Your task to perform on an android device: open app "Google Pay: Save, Pay, Manage" (install if not already installed) Image 0: 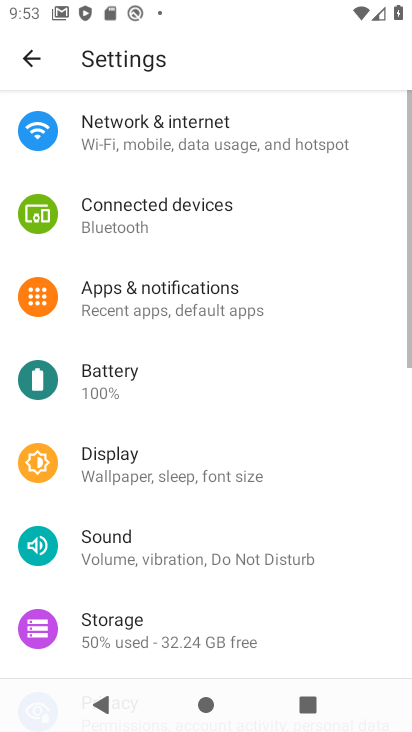
Step 0: press back button
Your task to perform on an android device: open app "Google Pay: Save, Pay, Manage" (install if not already installed) Image 1: 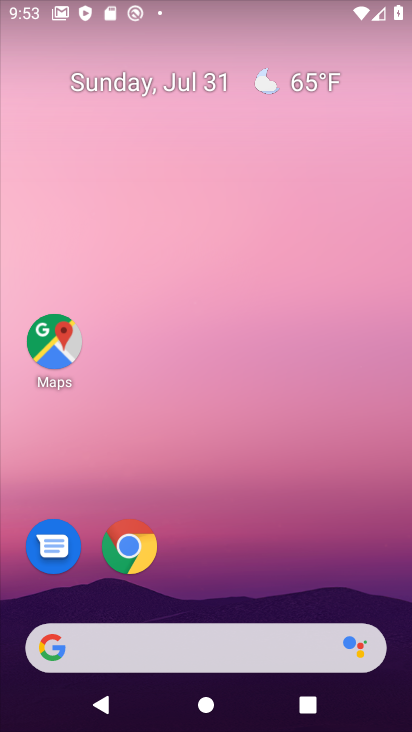
Step 1: drag from (230, 603) to (288, 11)
Your task to perform on an android device: open app "Google Pay: Save, Pay, Manage" (install if not already installed) Image 2: 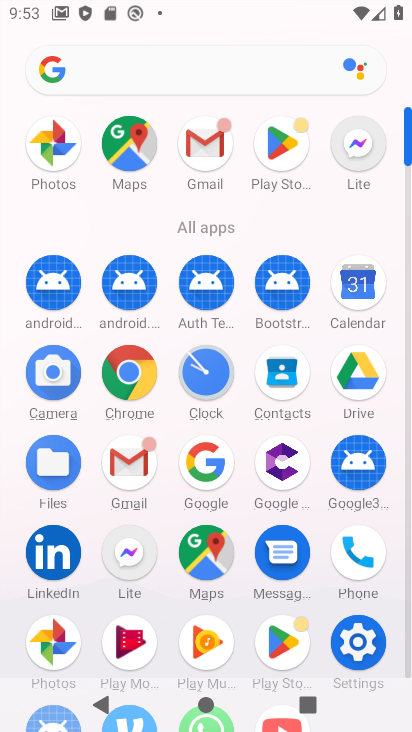
Step 2: click (286, 143)
Your task to perform on an android device: open app "Google Pay: Save, Pay, Manage" (install if not already installed) Image 3: 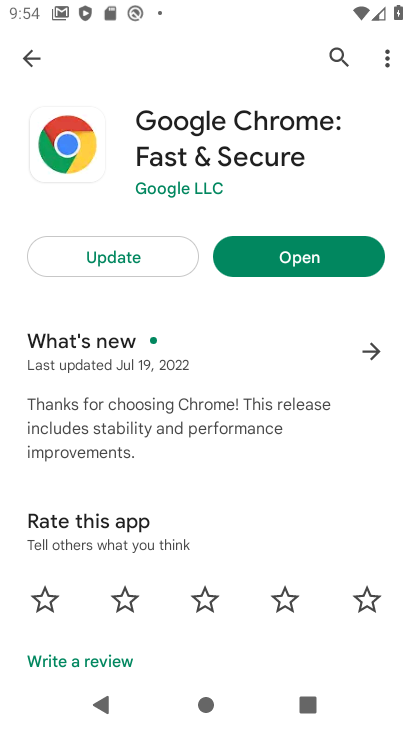
Step 3: click (30, 54)
Your task to perform on an android device: open app "Google Pay: Save, Pay, Manage" (install if not already installed) Image 4: 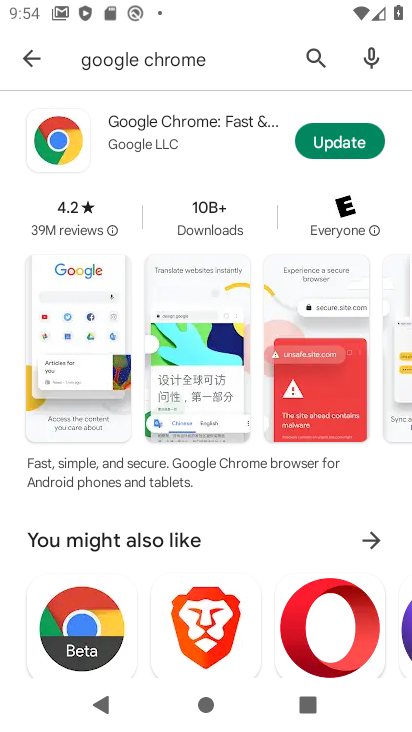
Step 4: click (307, 57)
Your task to perform on an android device: open app "Google Pay: Save, Pay, Manage" (install if not already installed) Image 5: 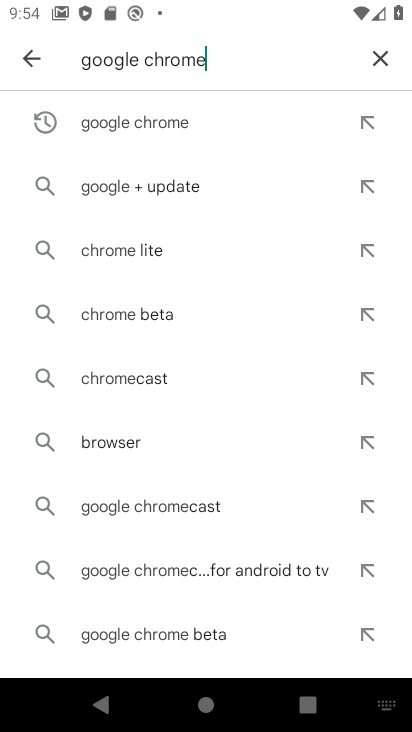
Step 5: click (363, 52)
Your task to perform on an android device: open app "Google Pay: Save, Pay, Manage" (install if not already installed) Image 6: 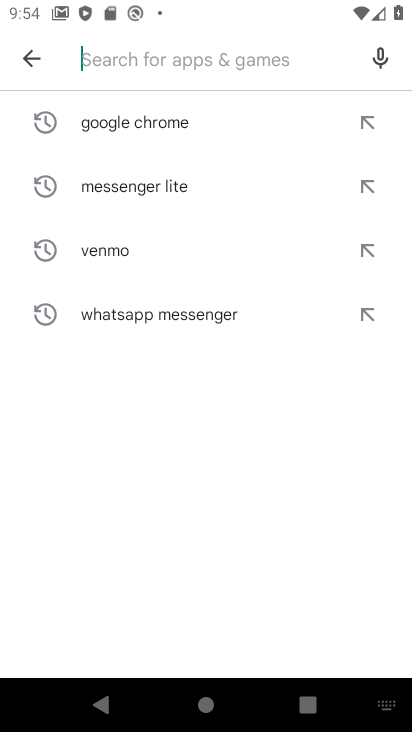
Step 6: click (211, 57)
Your task to perform on an android device: open app "Google Pay: Save, Pay, Manage" (install if not already installed) Image 7: 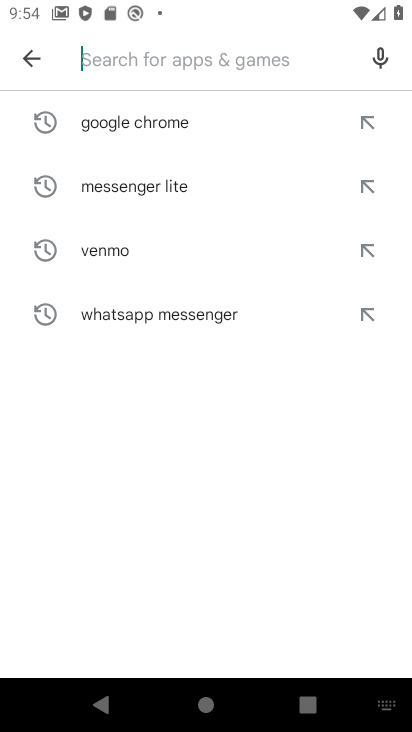
Step 7: type "google pay"
Your task to perform on an android device: open app "Google Pay: Save, Pay, Manage" (install if not already installed) Image 8: 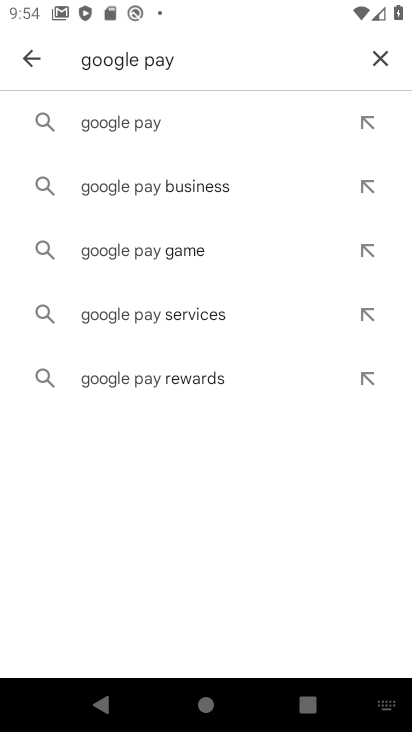
Step 8: click (126, 117)
Your task to perform on an android device: open app "Google Pay: Save, Pay, Manage" (install if not already installed) Image 9: 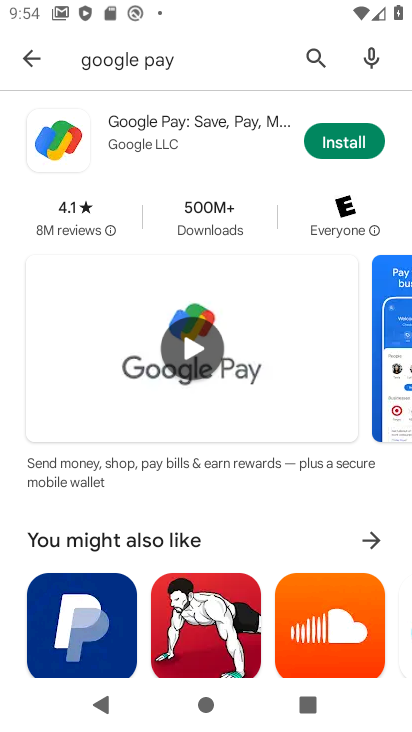
Step 9: click (330, 145)
Your task to perform on an android device: open app "Google Pay: Save, Pay, Manage" (install if not already installed) Image 10: 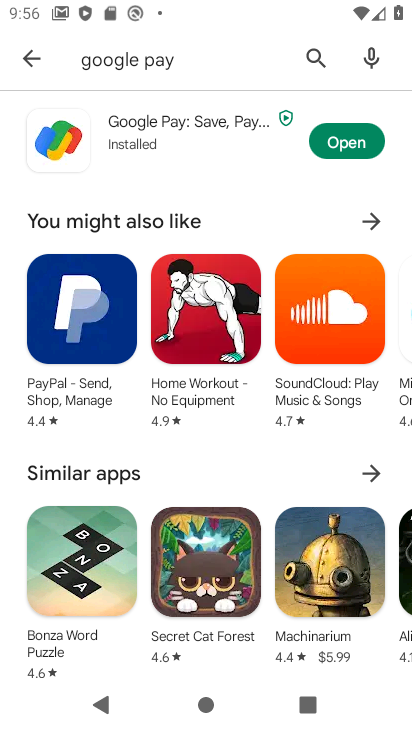
Step 10: click (348, 135)
Your task to perform on an android device: open app "Google Pay: Save, Pay, Manage" (install if not already installed) Image 11: 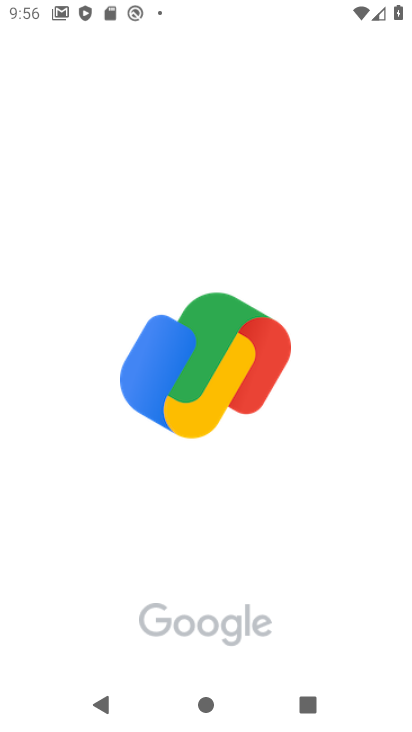
Step 11: task complete